Your task to perform on an android device: open sync settings in chrome Image 0: 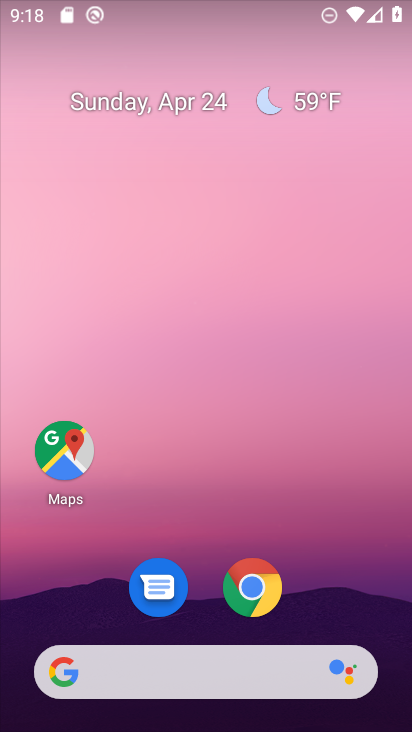
Step 0: click (250, 587)
Your task to perform on an android device: open sync settings in chrome Image 1: 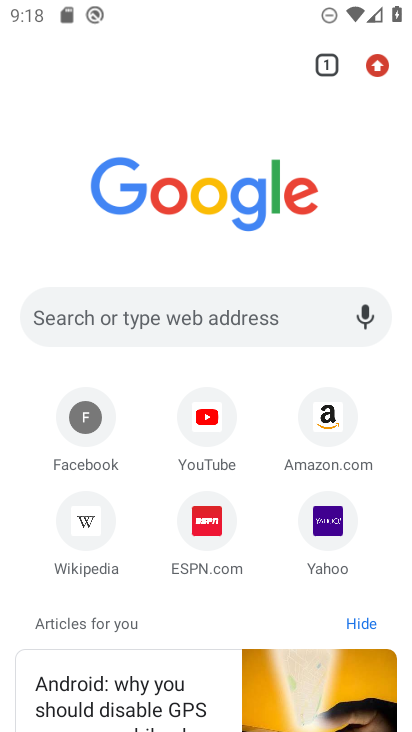
Step 1: click (378, 68)
Your task to perform on an android device: open sync settings in chrome Image 2: 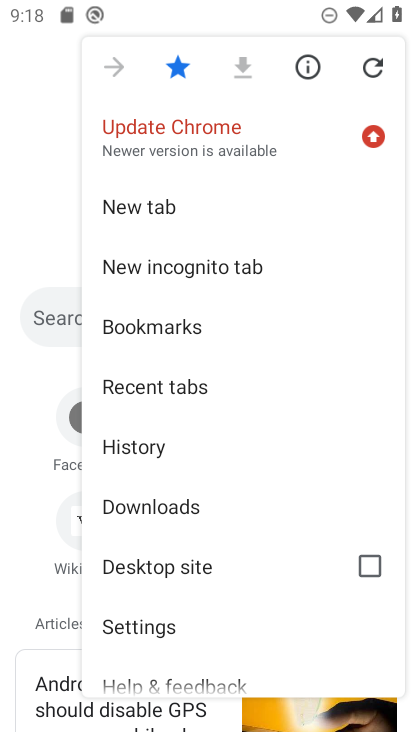
Step 2: click (152, 625)
Your task to perform on an android device: open sync settings in chrome Image 3: 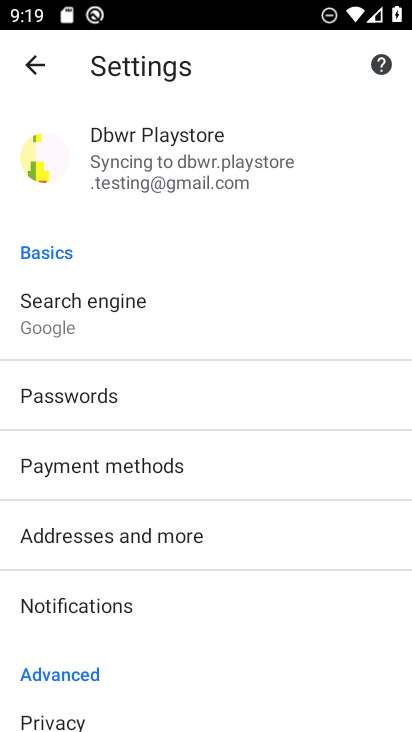
Step 3: drag from (155, 660) to (199, 449)
Your task to perform on an android device: open sync settings in chrome Image 4: 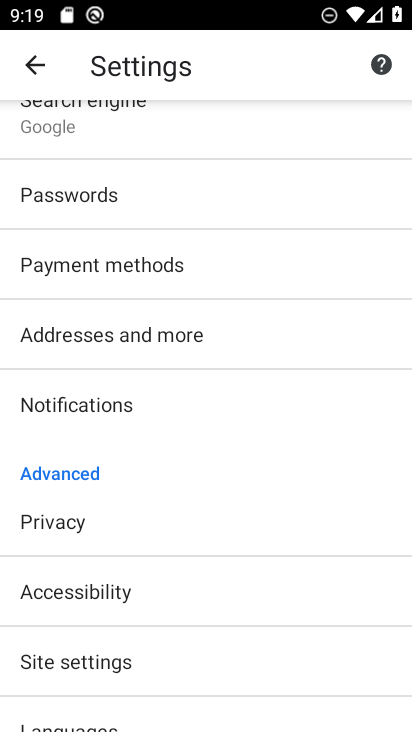
Step 4: drag from (237, 518) to (249, 416)
Your task to perform on an android device: open sync settings in chrome Image 5: 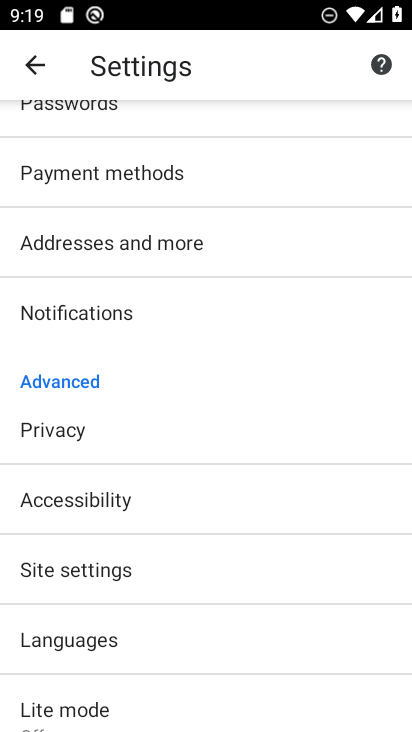
Step 5: click (101, 574)
Your task to perform on an android device: open sync settings in chrome Image 6: 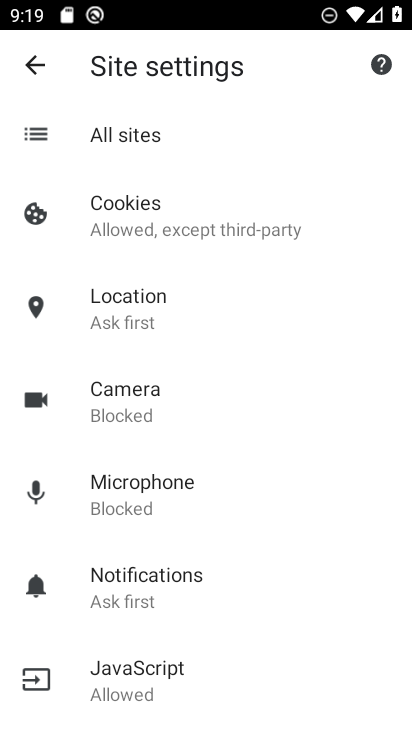
Step 6: drag from (198, 641) to (245, 448)
Your task to perform on an android device: open sync settings in chrome Image 7: 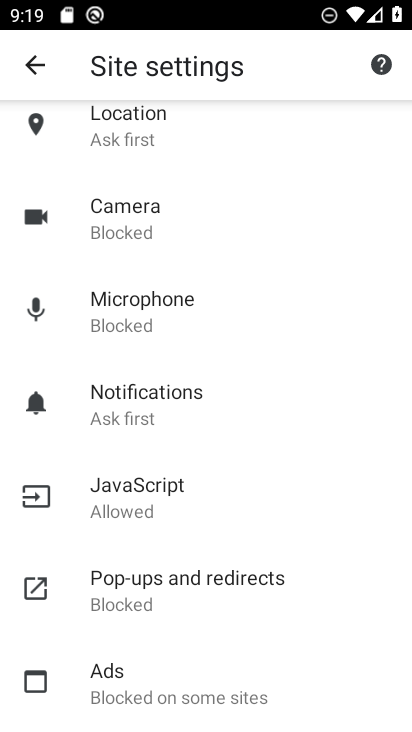
Step 7: drag from (179, 613) to (192, 506)
Your task to perform on an android device: open sync settings in chrome Image 8: 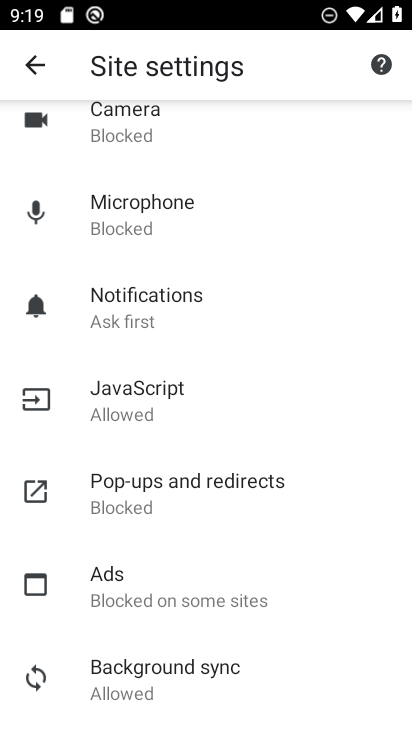
Step 8: drag from (162, 625) to (201, 512)
Your task to perform on an android device: open sync settings in chrome Image 9: 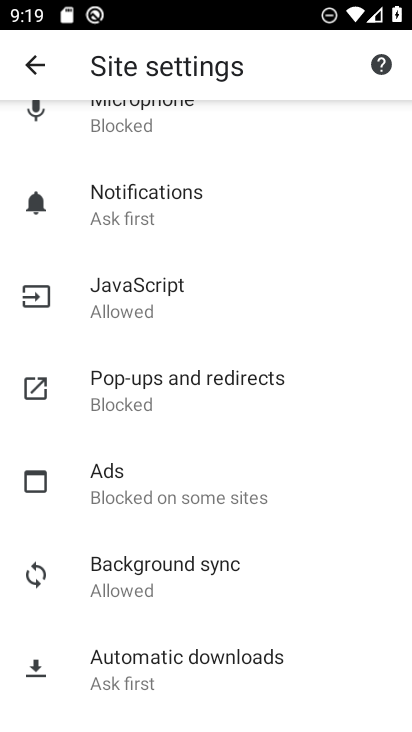
Step 9: click (195, 567)
Your task to perform on an android device: open sync settings in chrome Image 10: 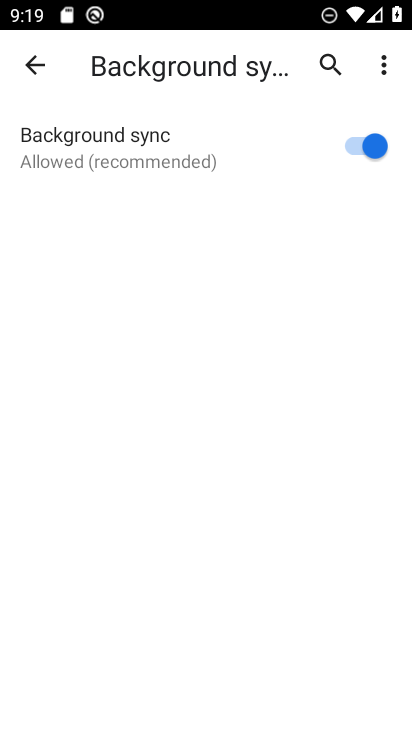
Step 10: task complete